Your task to perform on an android device: find photos in the google photos app Image 0: 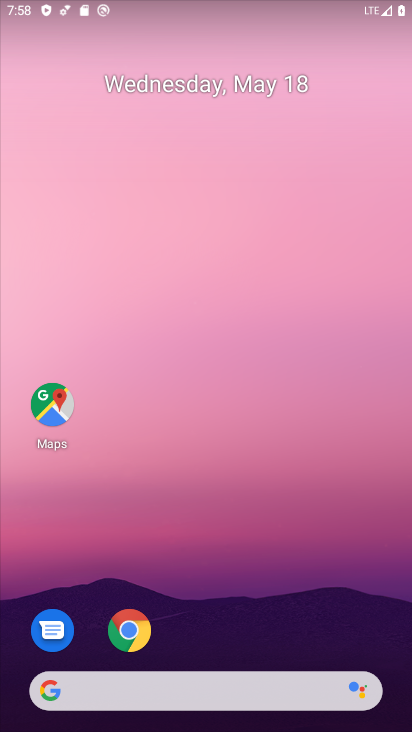
Step 0: press home button
Your task to perform on an android device: find photos in the google photos app Image 1: 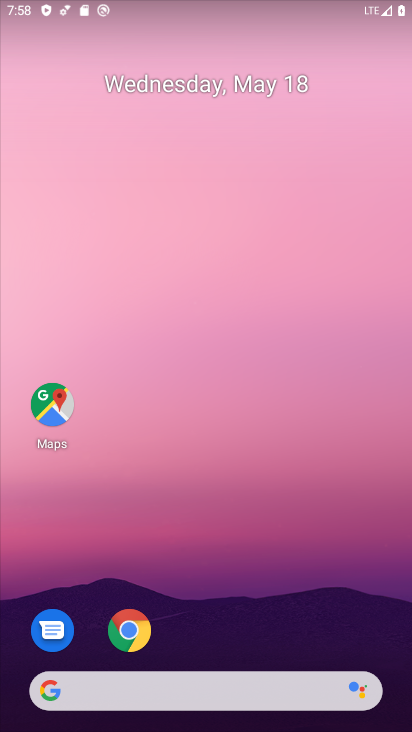
Step 1: drag from (190, 683) to (345, 149)
Your task to perform on an android device: find photos in the google photos app Image 2: 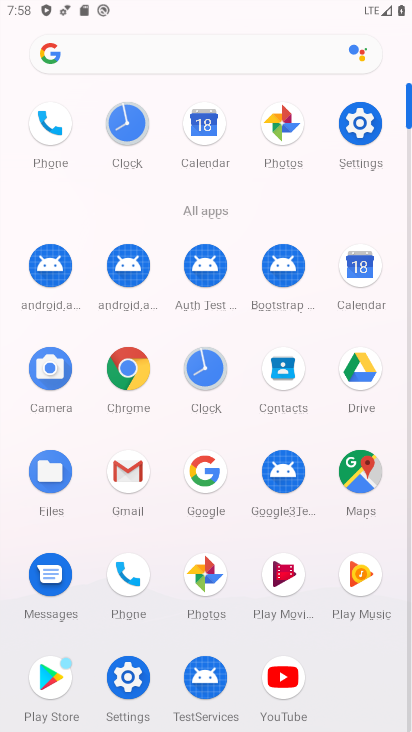
Step 2: click (202, 575)
Your task to perform on an android device: find photos in the google photos app Image 3: 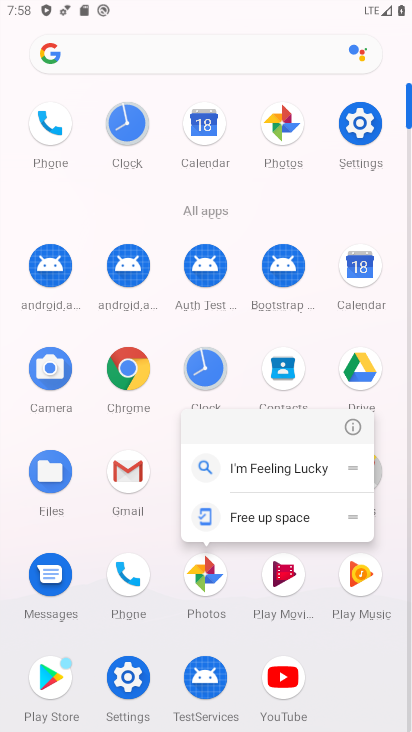
Step 3: click (199, 587)
Your task to perform on an android device: find photos in the google photos app Image 4: 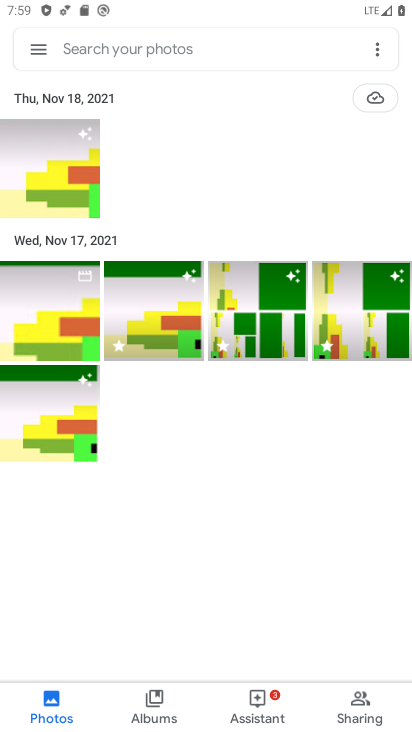
Step 4: task complete